Your task to perform on an android device: clear all cookies in the chrome app Image 0: 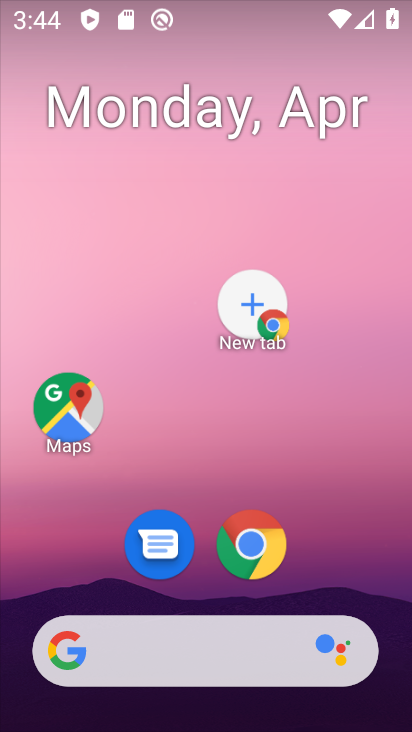
Step 0: drag from (259, 607) to (345, 86)
Your task to perform on an android device: clear all cookies in the chrome app Image 1: 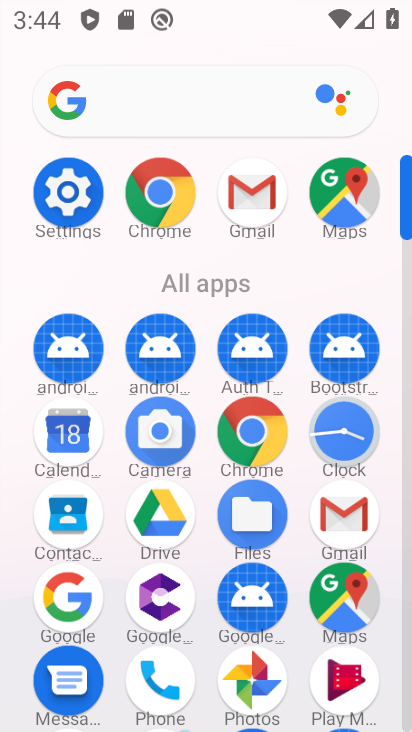
Step 1: click (236, 432)
Your task to perform on an android device: clear all cookies in the chrome app Image 2: 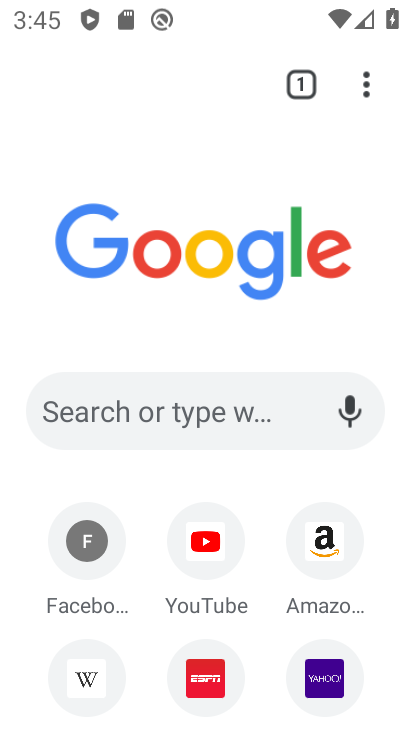
Step 2: click (359, 79)
Your task to perform on an android device: clear all cookies in the chrome app Image 3: 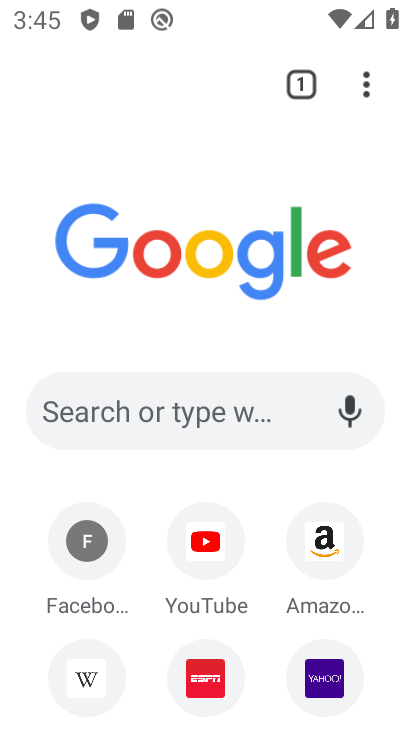
Step 3: click (359, 79)
Your task to perform on an android device: clear all cookies in the chrome app Image 4: 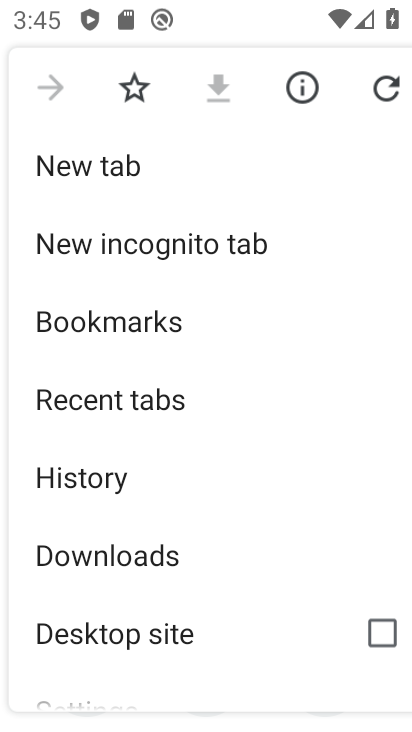
Step 4: drag from (235, 496) to (224, 58)
Your task to perform on an android device: clear all cookies in the chrome app Image 5: 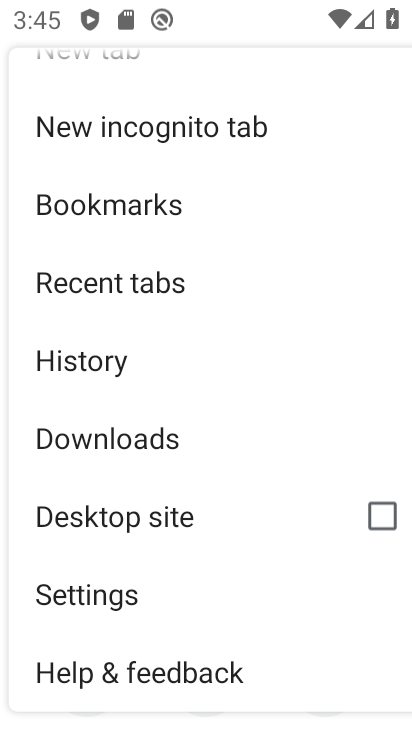
Step 5: click (164, 603)
Your task to perform on an android device: clear all cookies in the chrome app Image 6: 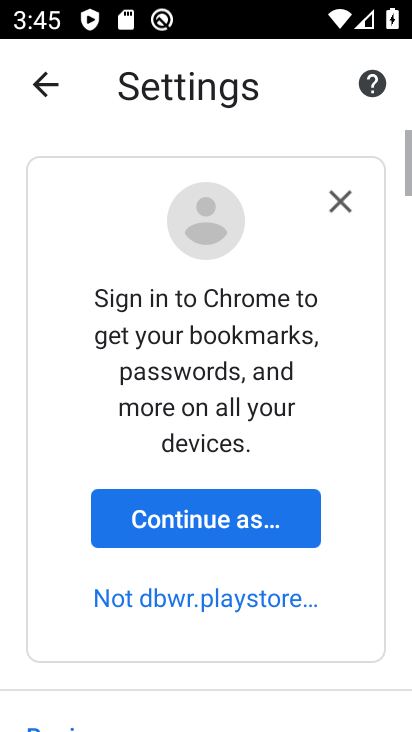
Step 6: drag from (173, 530) to (217, 215)
Your task to perform on an android device: clear all cookies in the chrome app Image 7: 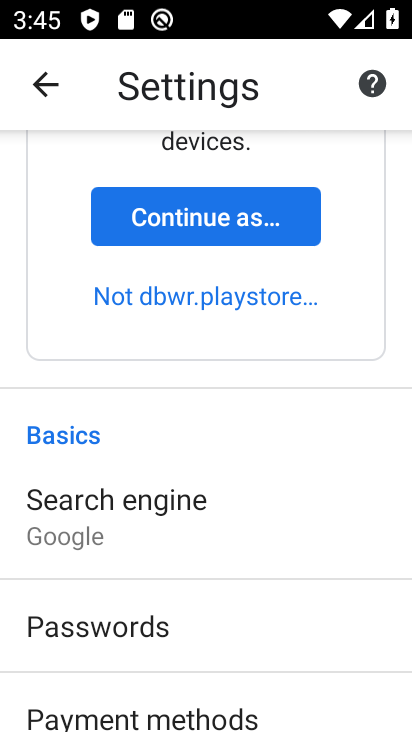
Step 7: drag from (276, 640) to (296, 158)
Your task to perform on an android device: clear all cookies in the chrome app Image 8: 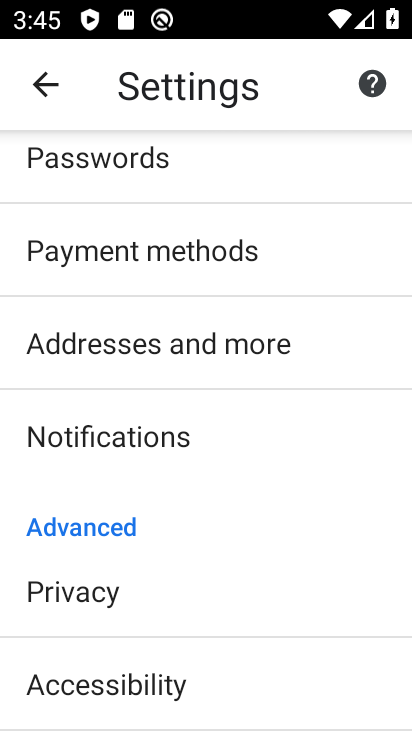
Step 8: click (160, 578)
Your task to perform on an android device: clear all cookies in the chrome app Image 9: 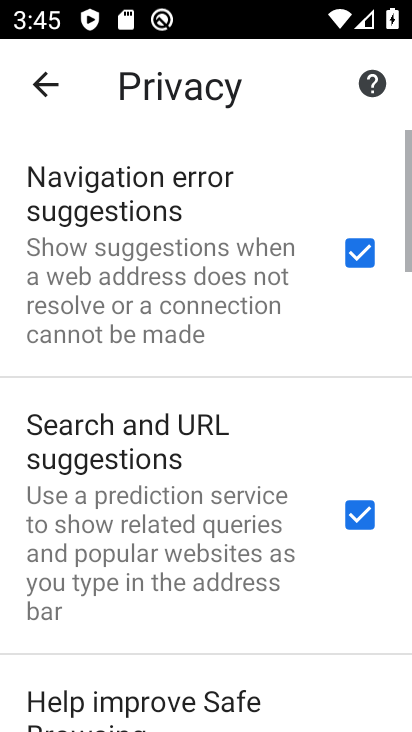
Step 9: drag from (201, 511) to (197, 94)
Your task to perform on an android device: clear all cookies in the chrome app Image 10: 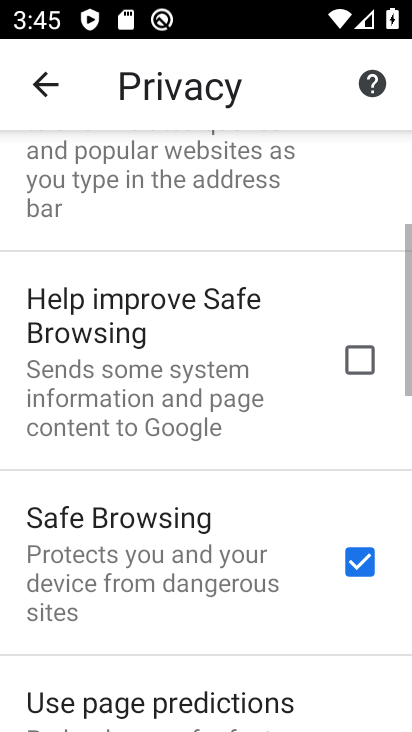
Step 10: drag from (174, 651) to (150, 141)
Your task to perform on an android device: clear all cookies in the chrome app Image 11: 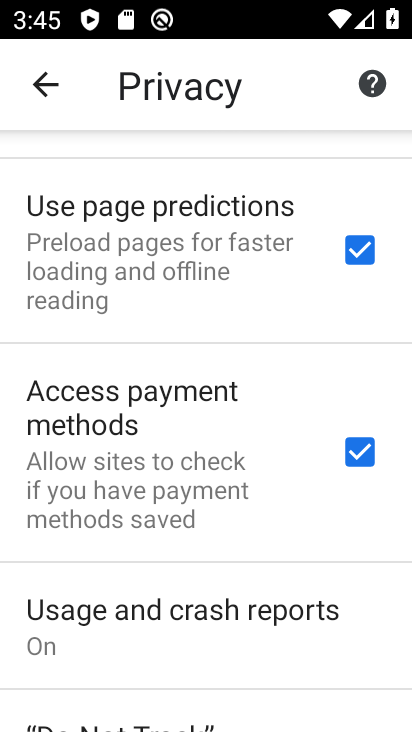
Step 11: drag from (127, 567) to (115, 122)
Your task to perform on an android device: clear all cookies in the chrome app Image 12: 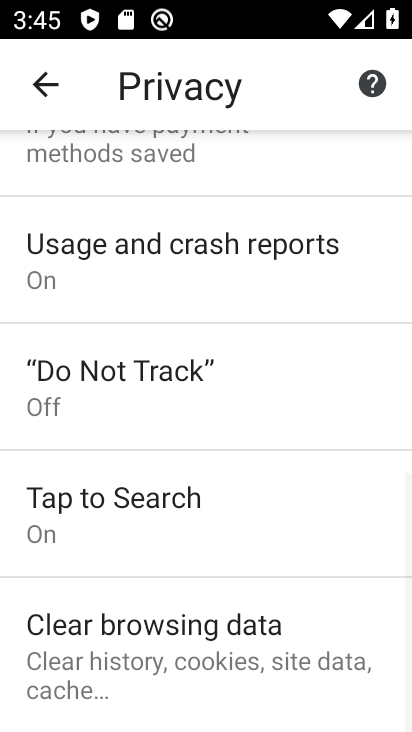
Step 12: drag from (175, 652) to (189, 437)
Your task to perform on an android device: clear all cookies in the chrome app Image 13: 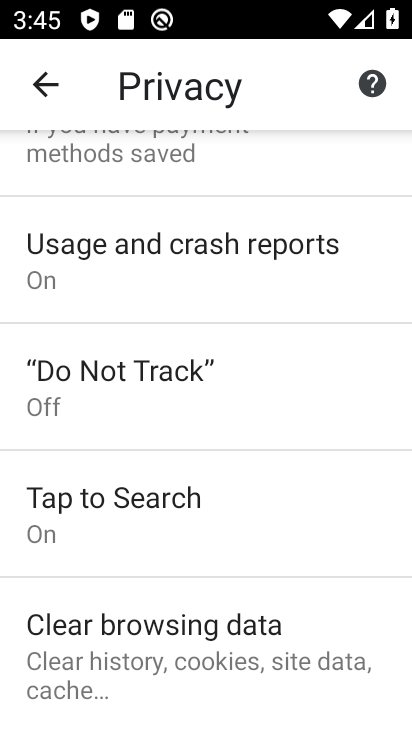
Step 13: click (241, 675)
Your task to perform on an android device: clear all cookies in the chrome app Image 14: 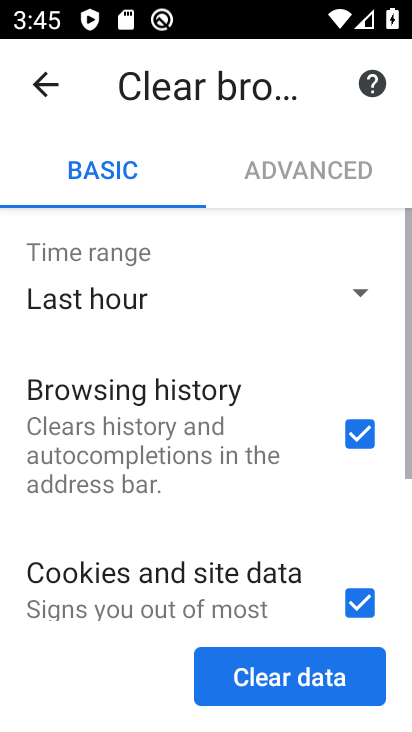
Step 14: click (234, 672)
Your task to perform on an android device: clear all cookies in the chrome app Image 15: 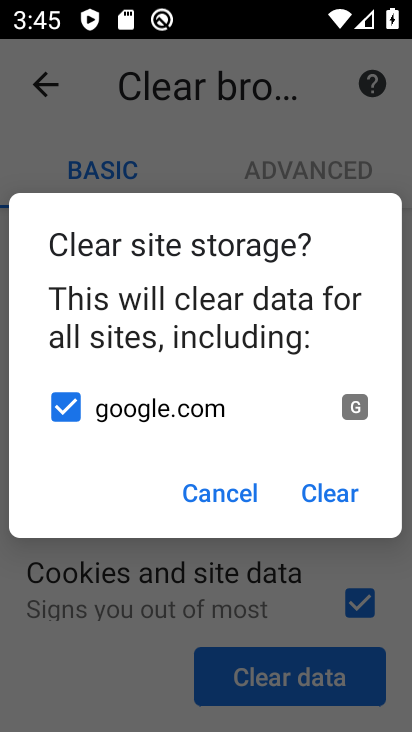
Step 15: click (342, 487)
Your task to perform on an android device: clear all cookies in the chrome app Image 16: 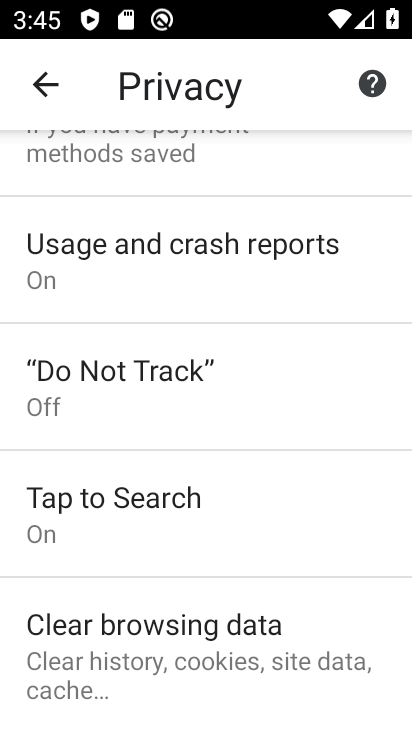
Step 16: task complete